Your task to perform on an android device: Open wifi settings Image 0: 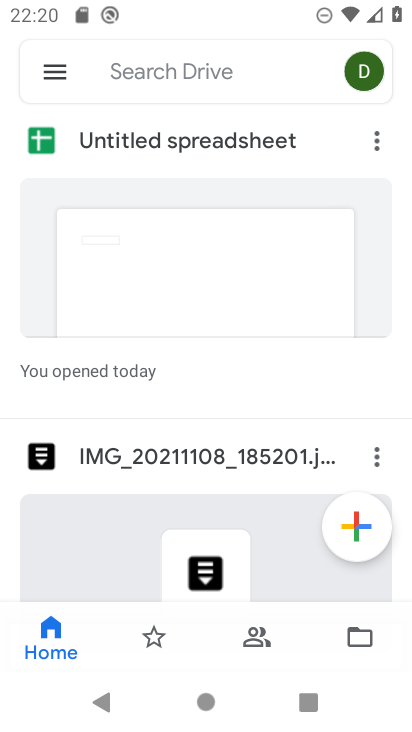
Step 0: press home button
Your task to perform on an android device: Open wifi settings Image 1: 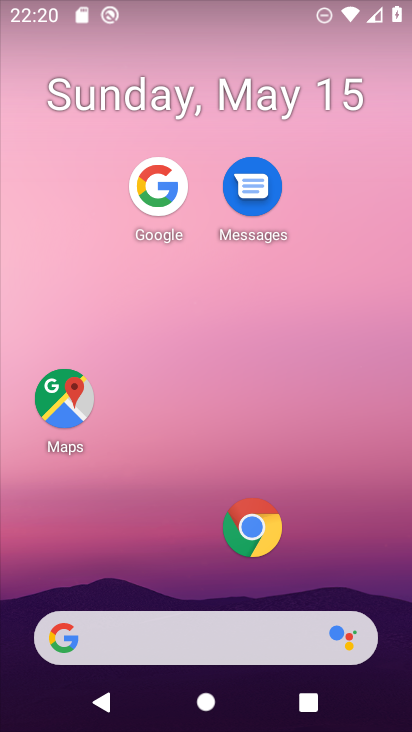
Step 1: drag from (190, 637) to (291, 165)
Your task to perform on an android device: Open wifi settings Image 2: 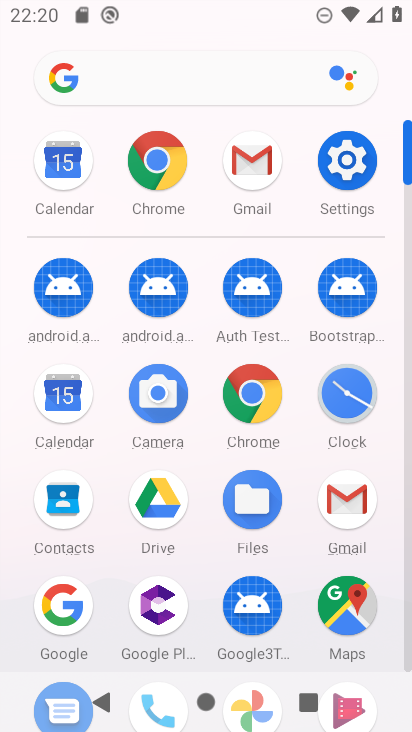
Step 2: click (344, 166)
Your task to perform on an android device: Open wifi settings Image 3: 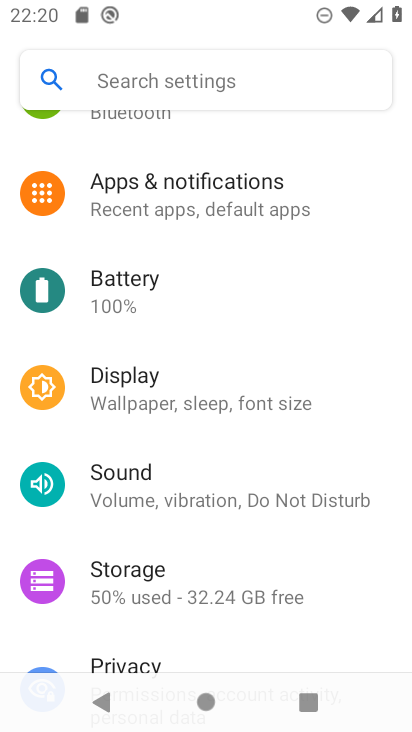
Step 3: drag from (254, 404) to (204, 555)
Your task to perform on an android device: Open wifi settings Image 4: 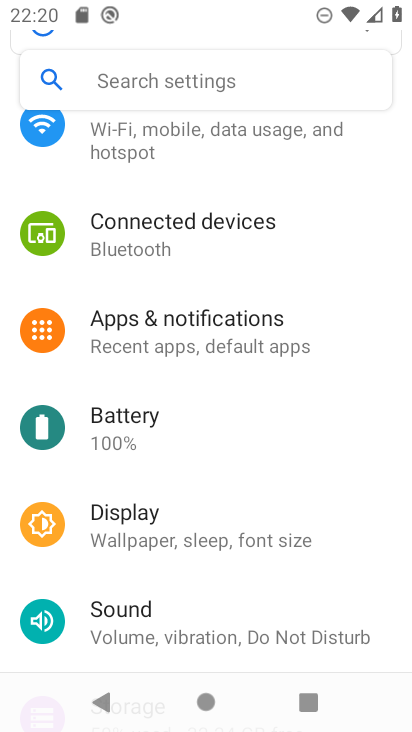
Step 4: drag from (315, 186) to (221, 597)
Your task to perform on an android device: Open wifi settings Image 5: 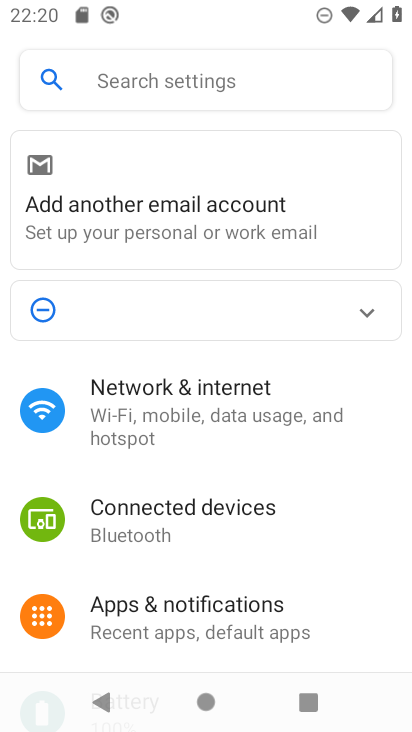
Step 5: click (205, 396)
Your task to perform on an android device: Open wifi settings Image 6: 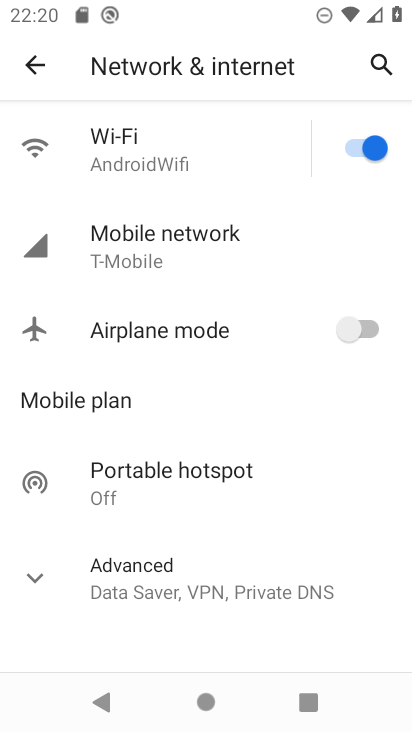
Step 6: click (156, 155)
Your task to perform on an android device: Open wifi settings Image 7: 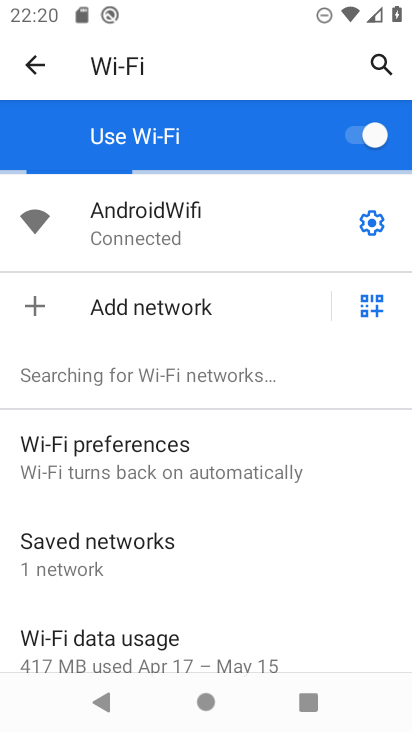
Step 7: task complete